Your task to perform on an android device: turn smart compose on in the gmail app Image 0: 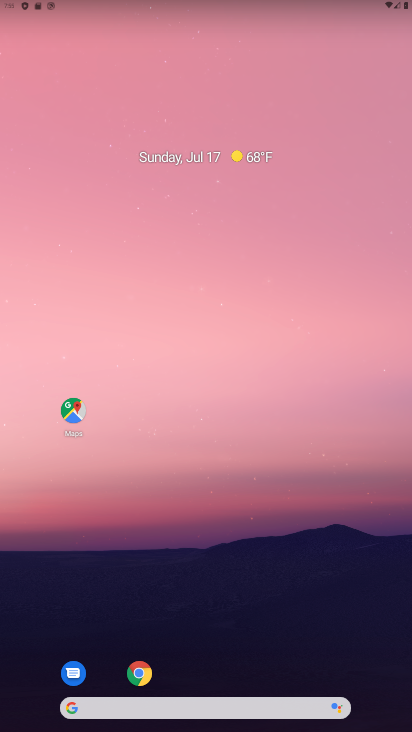
Step 0: drag from (313, 651) to (130, 131)
Your task to perform on an android device: turn smart compose on in the gmail app Image 1: 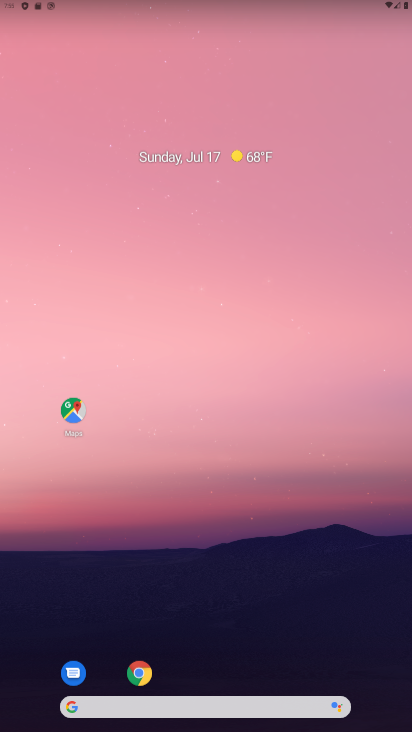
Step 1: drag from (307, 641) to (177, 64)
Your task to perform on an android device: turn smart compose on in the gmail app Image 2: 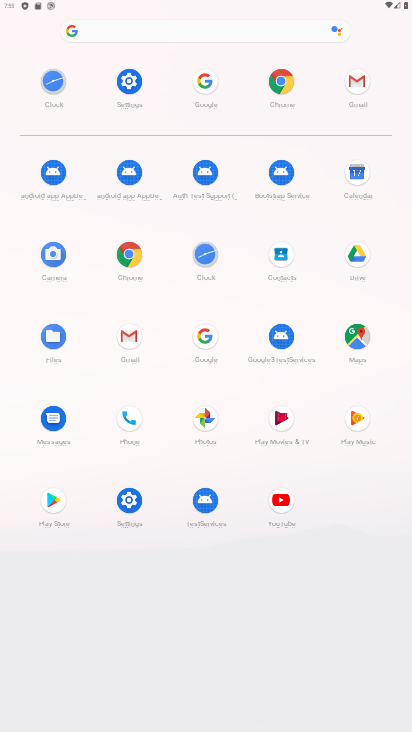
Step 2: click (357, 88)
Your task to perform on an android device: turn smart compose on in the gmail app Image 3: 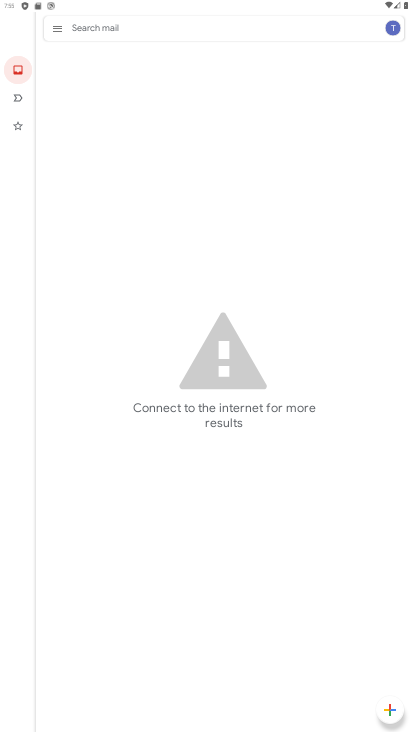
Step 3: click (47, 36)
Your task to perform on an android device: turn smart compose on in the gmail app Image 4: 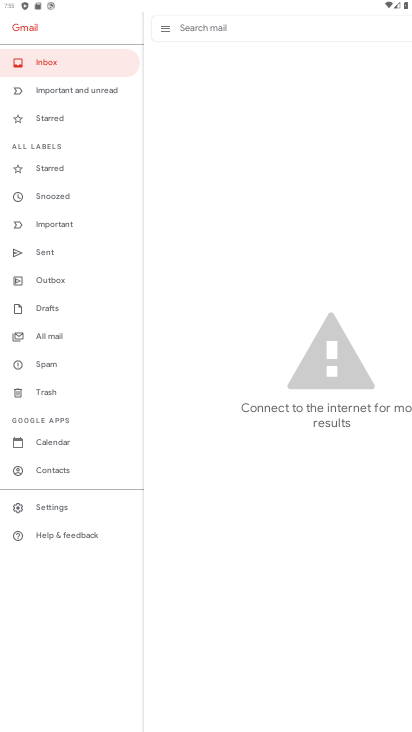
Step 4: click (62, 507)
Your task to perform on an android device: turn smart compose on in the gmail app Image 5: 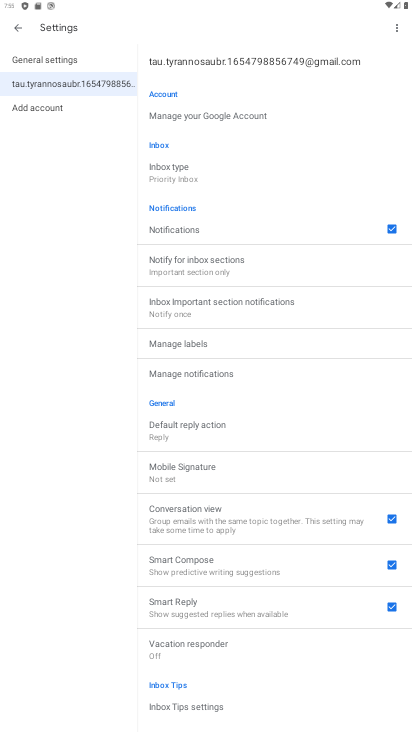
Step 5: task complete